Your task to perform on an android device: Open the web browser Image 0: 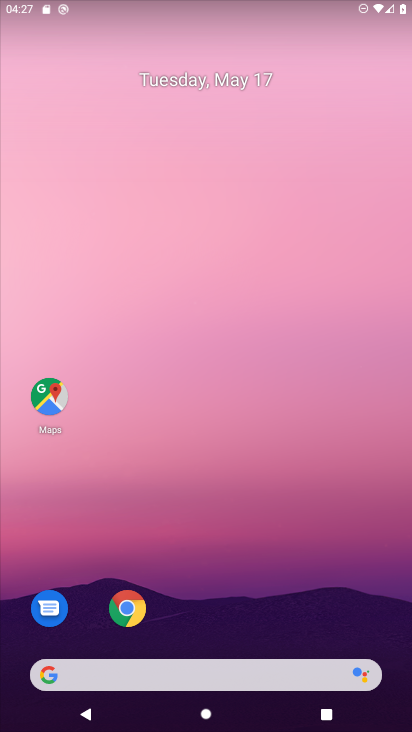
Step 0: click (127, 612)
Your task to perform on an android device: Open the web browser Image 1: 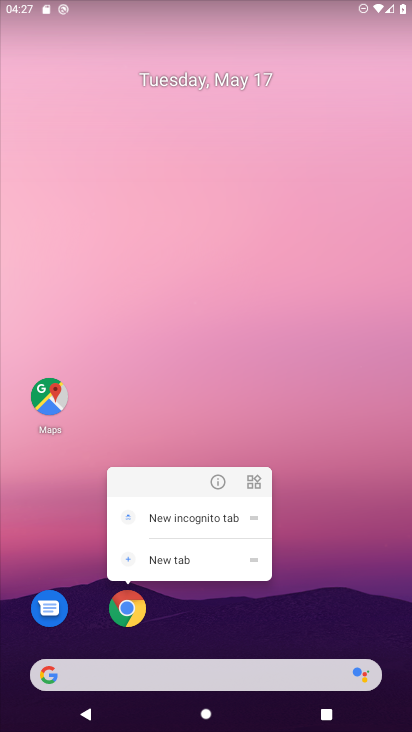
Step 1: click (127, 612)
Your task to perform on an android device: Open the web browser Image 2: 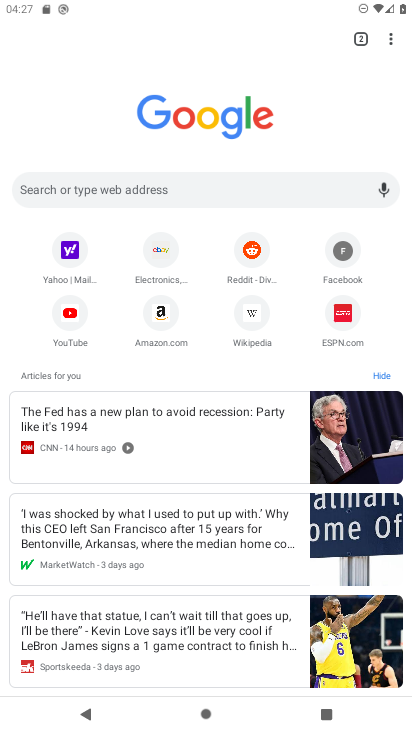
Step 2: task complete